Your task to perform on an android device: Go to calendar. Show me events next week Image 0: 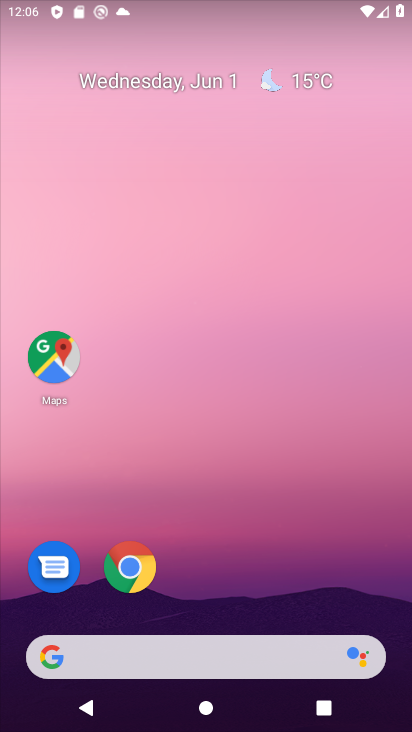
Step 0: drag from (194, 649) to (241, 112)
Your task to perform on an android device: Go to calendar. Show me events next week Image 1: 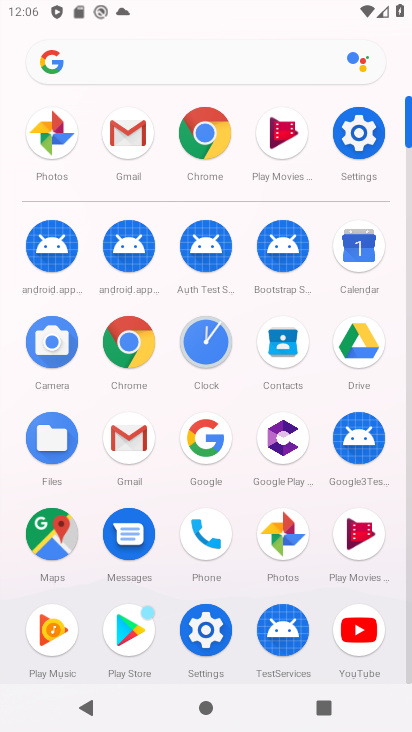
Step 1: click (370, 242)
Your task to perform on an android device: Go to calendar. Show me events next week Image 2: 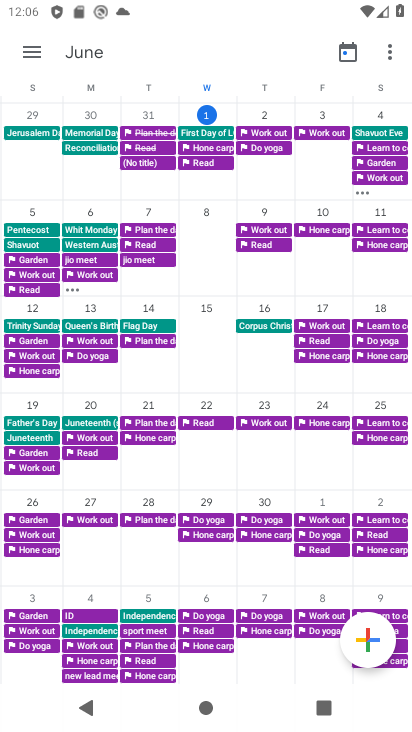
Step 2: task complete